Your task to perform on an android device: turn off notifications in google photos Image 0: 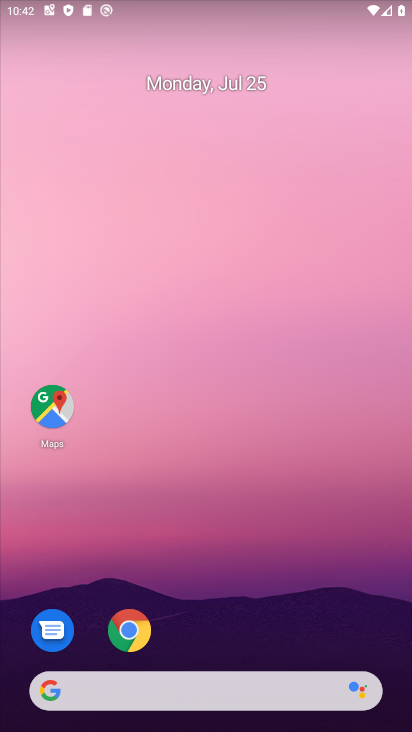
Step 0: press home button
Your task to perform on an android device: turn off notifications in google photos Image 1: 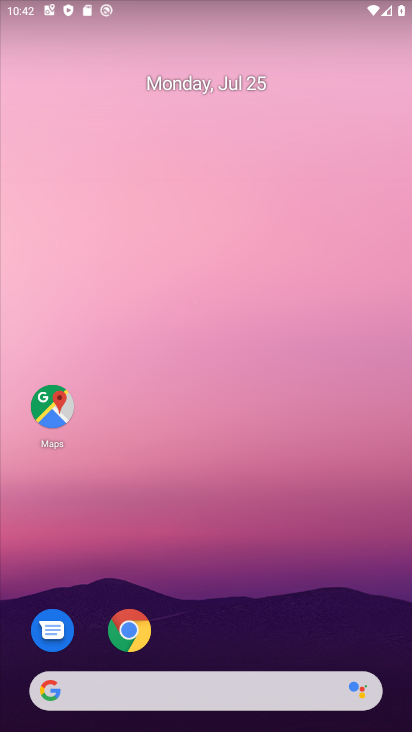
Step 1: drag from (356, 627) to (373, 192)
Your task to perform on an android device: turn off notifications in google photos Image 2: 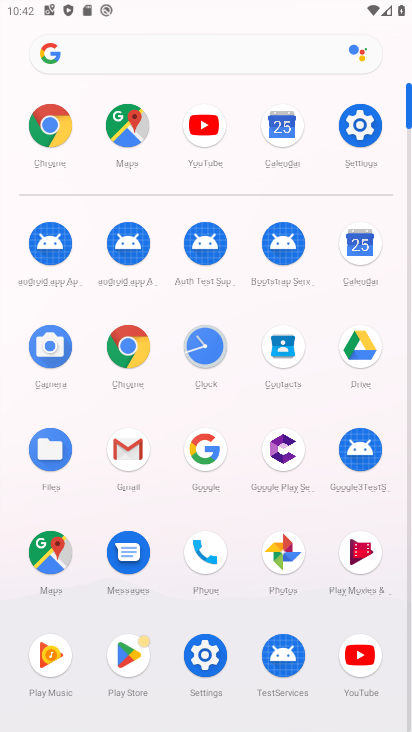
Step 2: click (285, 550)
Your task to perform on an android device: turn off notifications in google photos Image 3: 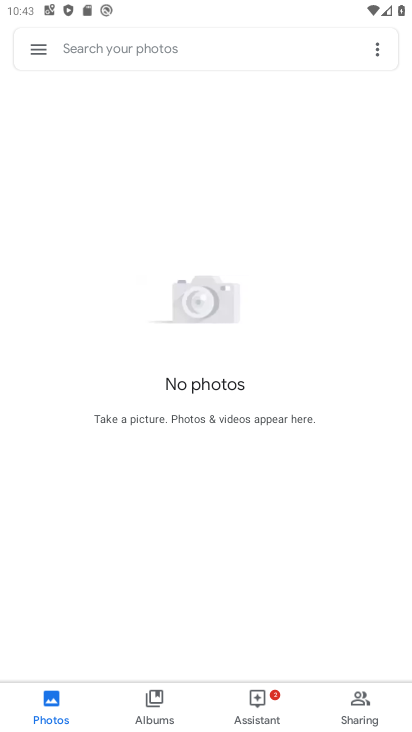
Step 3: click (74, 162)
Your task to perform on an android device: turn off notifications in google photos Image 4: 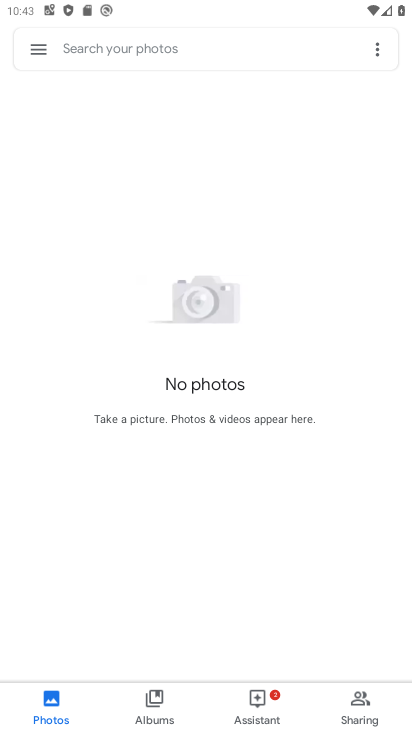
Step 4: click (38, 51)
Your task to perform on an android device: turn off notifications in google photos Image 5: 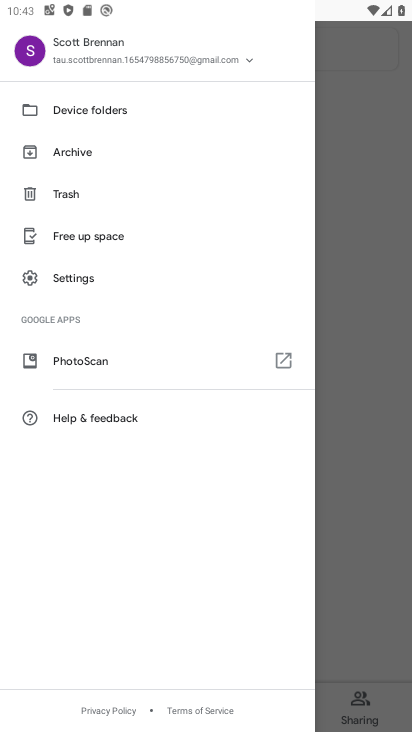
Step 5: click (90, 280)
Your task to perform on an android device: turn off notifications in google photos Image 6: 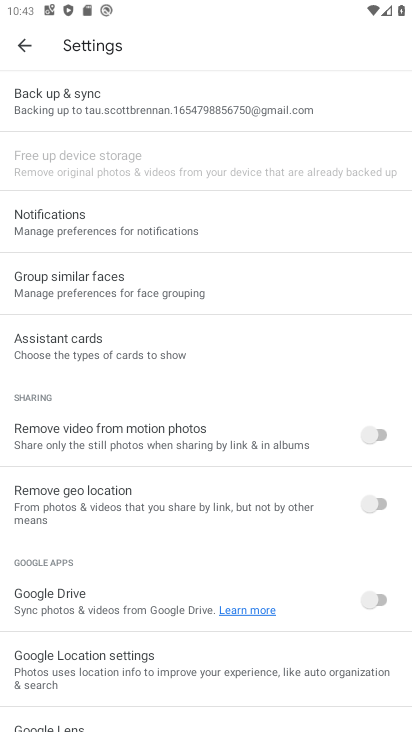
Step 6: click (226, 227)
Your task to perform on an android device: turn off notifications in google photos Image 7: 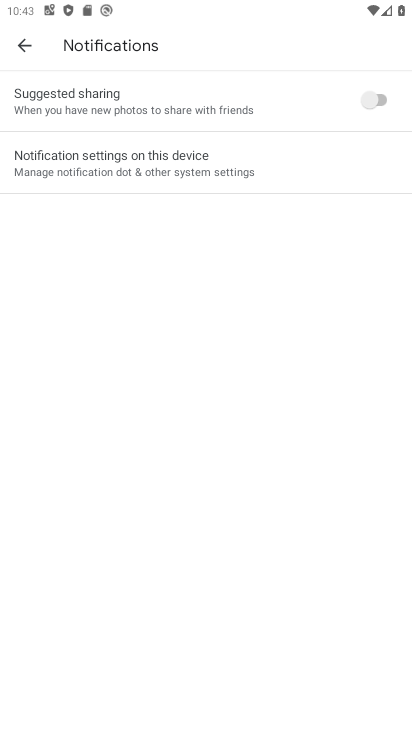
Step 7: click (235, 170)
Your task to perform on an android device: turn off notifications in google photos Image 8: 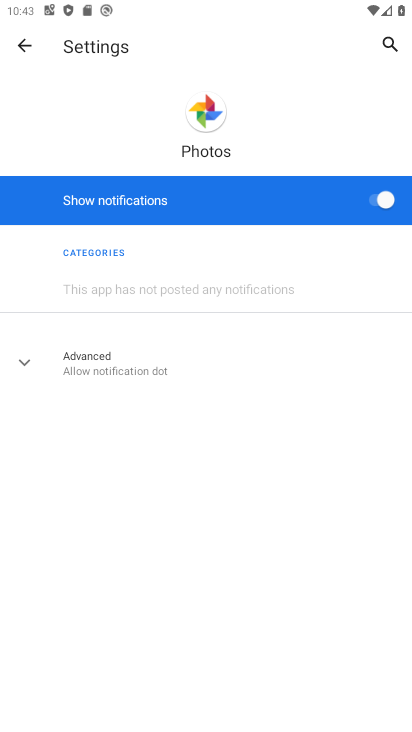
Step 8: click (375, 201)
Your task to perform on an android device: turn off notifications in google photos Image 9: 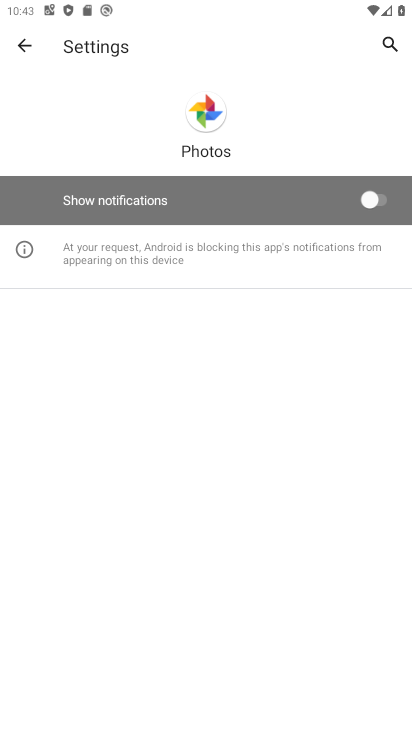
Step 9: task complete